Your task to perform on an android device: check the backup settings in the google photos Image 0: 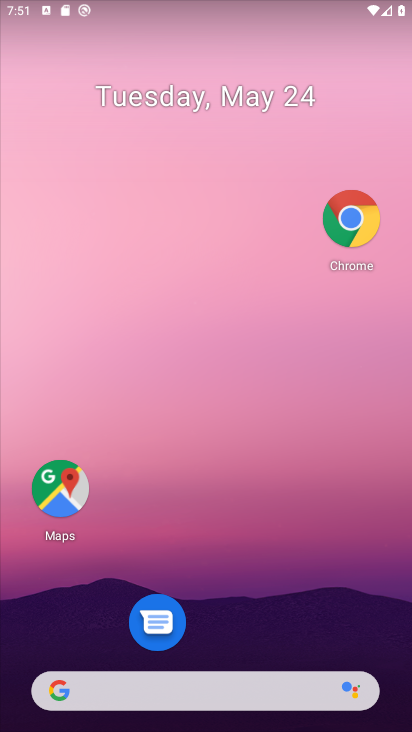
Step 0: click (324, 52)
Your task to perform on an android device: check the backup settings in the google photos Image 1: 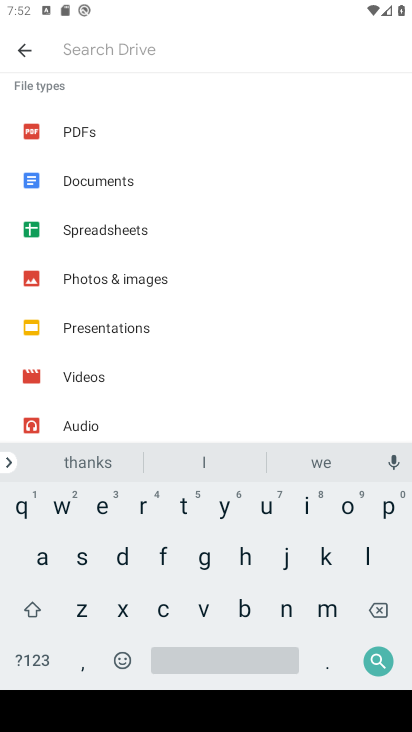
Step 1: press home button
Your task to perform on an android device: check the backup settings in the google photos Image 2: 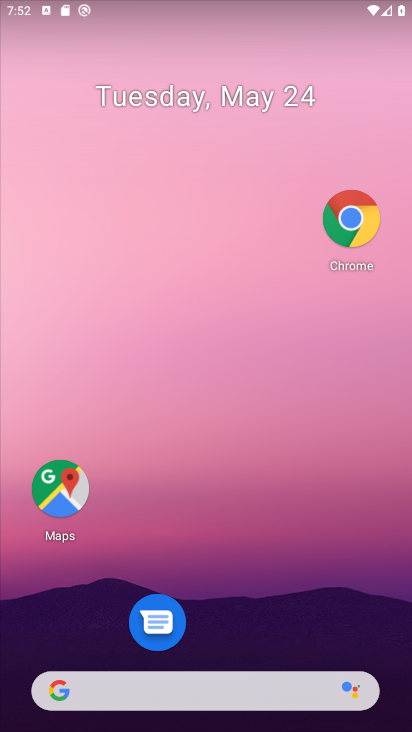
Step 2: drag from (217, 692) to (273, 46)
Your task to perform on an android device: check the backup settings in the google photos Image 3: 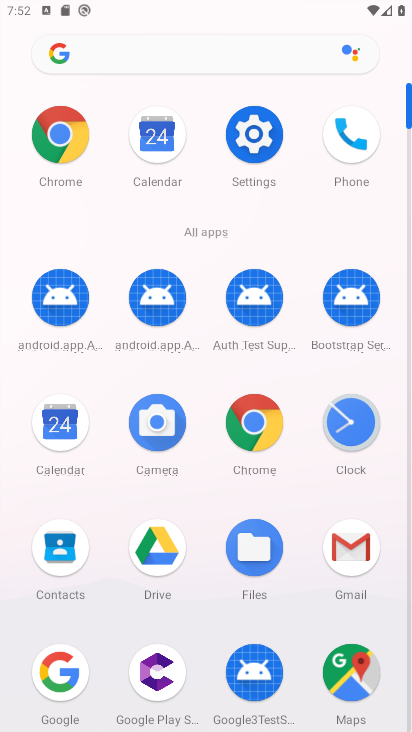
Step 3: drag from (114, 487) to (235, 227)
Your task to perform on an android device: check the backup settings in the google photos Image 4: 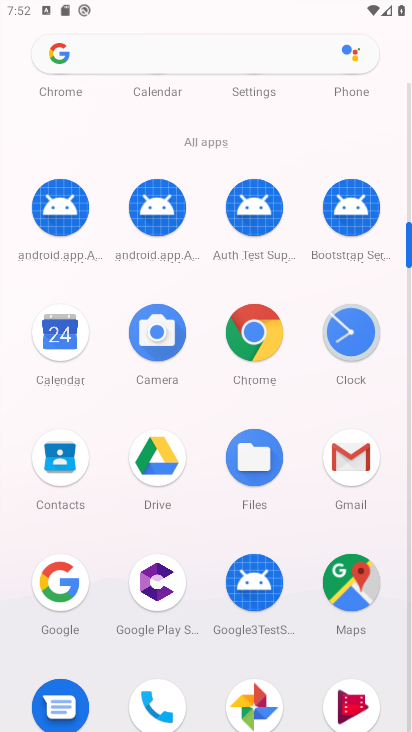
Step 4: click (243, 693)
Your task to perform on an android device: check the backup settings in the google photos Image 5: 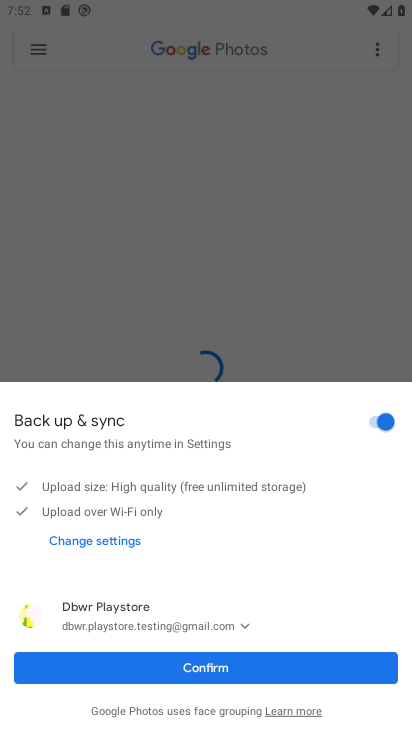
Step 5: click (240, 676)
Your task to perform on an android device: check the backup settings in the google photos Image 6: 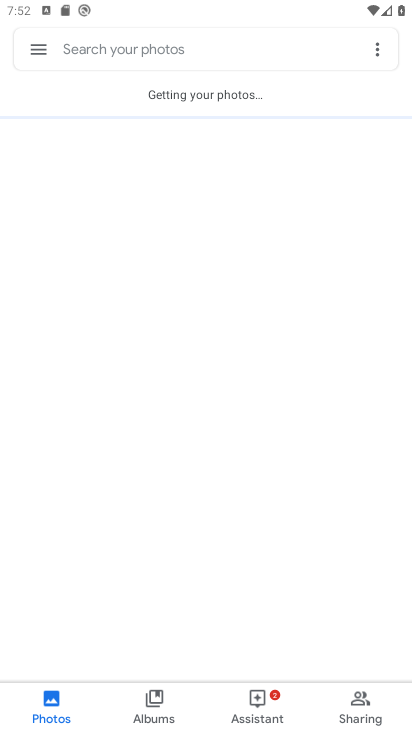
Step 6: click (50, 47)
Your task to perform on an android device: check the backup settings in the google photos Image 7: 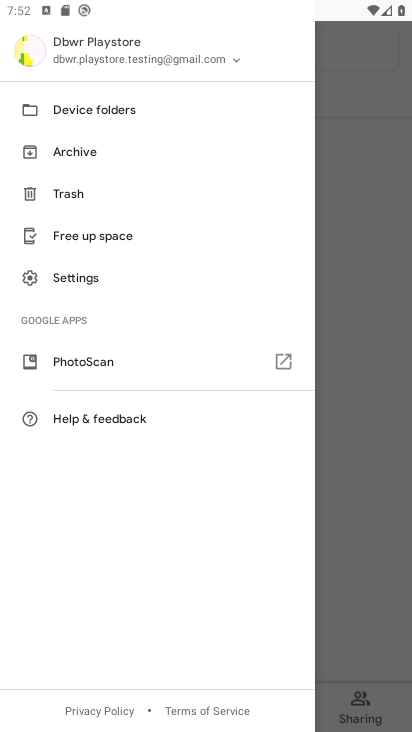
Step 7: click (83, 279)
Your task to perform on an android device: check the backup settings in the google photos Image 8: 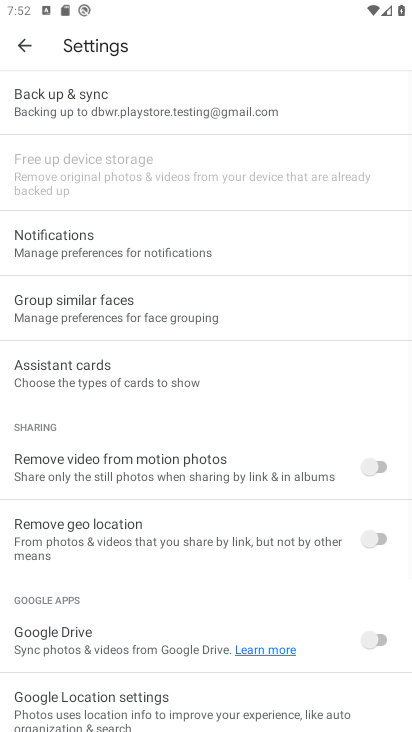
Step 8: click (88, 110)
Your task to perform on an android device: check the backup settings in the google photos Image 9: 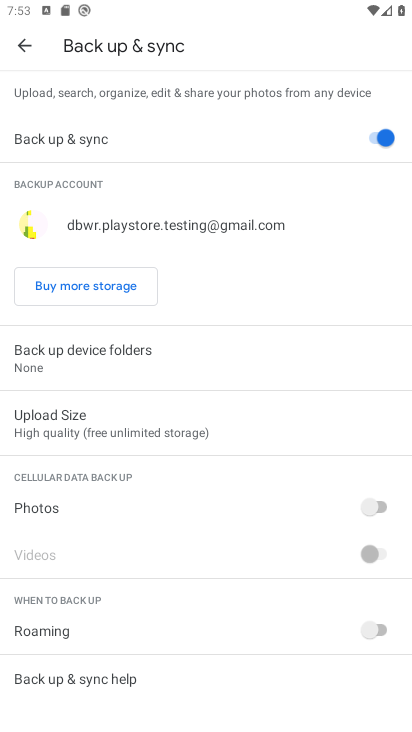
Step 9: task complete